Your task to perform on an android device: change the upload size in google photos Image 0: 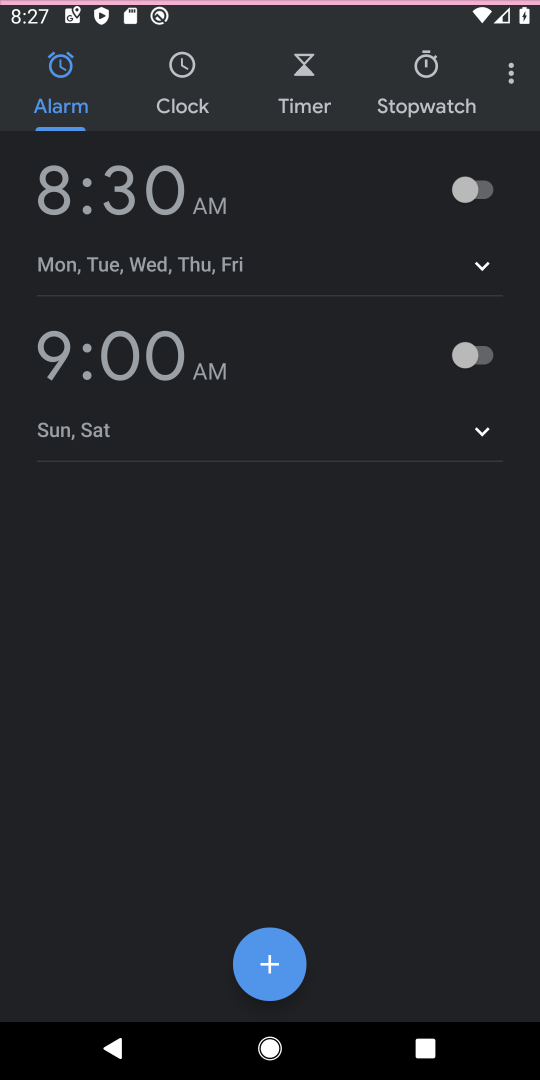
Step 0: press home button
Your task to perform on an android device: change the upload size in google photos Image 1: 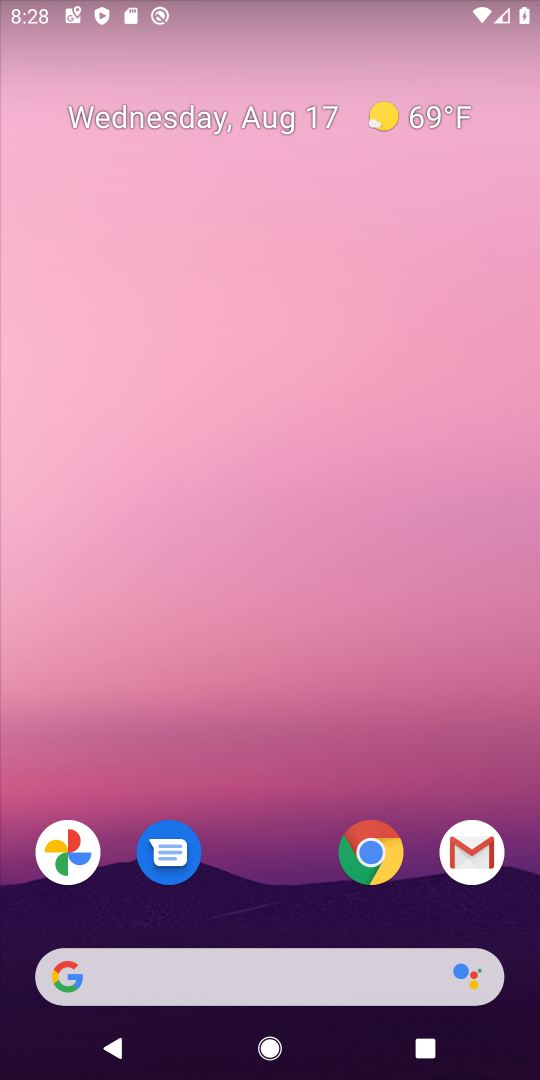
Step 1: click (62, 858)
Your task to perform on an android device: change the upload size in google photos Image 2: 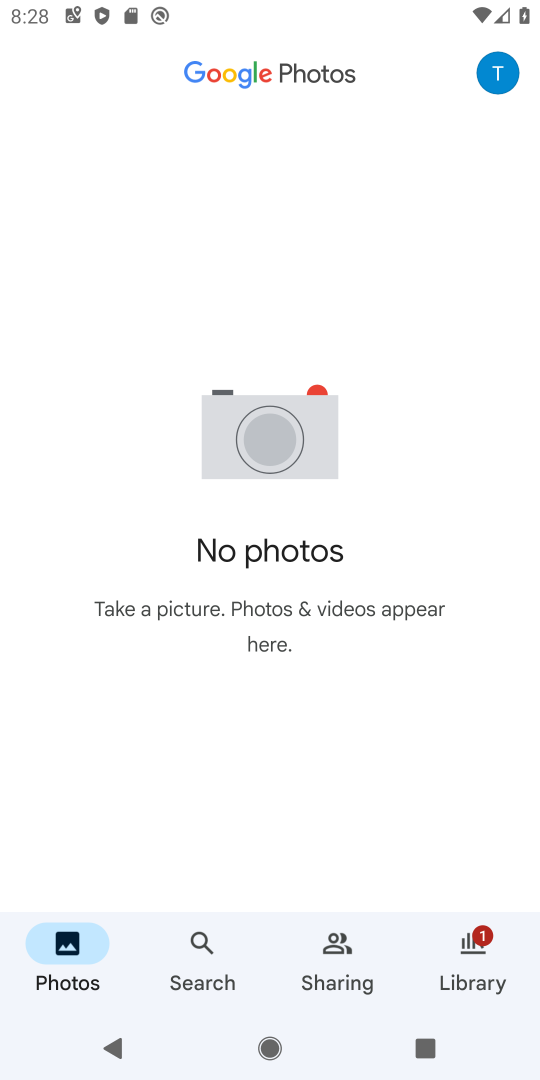
Step 2: click (500, 64)
Your task to perform on an android device: change the upload size in google photos Image 3: 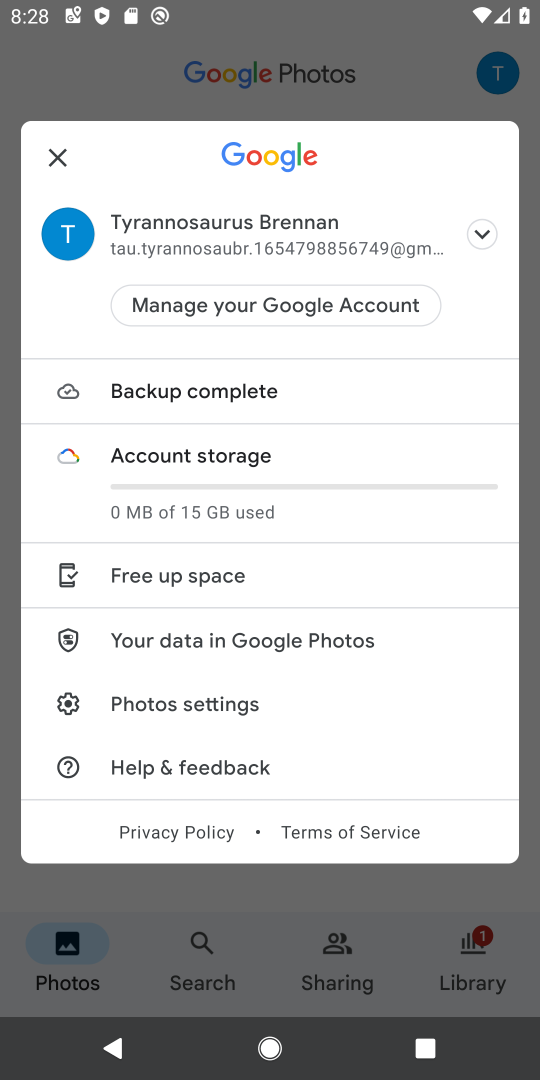
Step 3: click (193, 702)
Your task to perform on an android device: change the upload size in google photos Image 4: 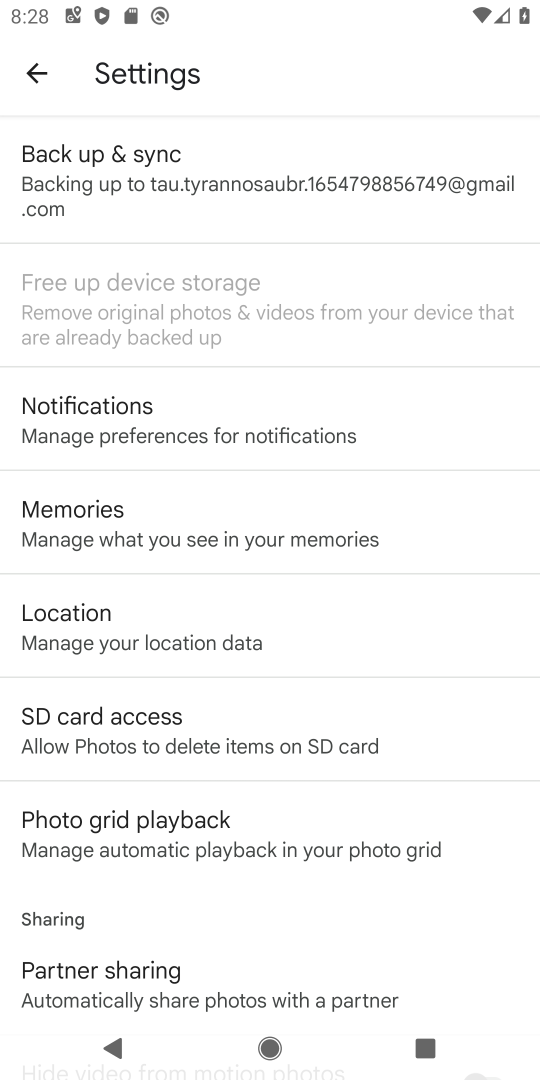
Step 4: click (95, 175)
Your task to perform on an android device: change the upload size in google photos Image 5: 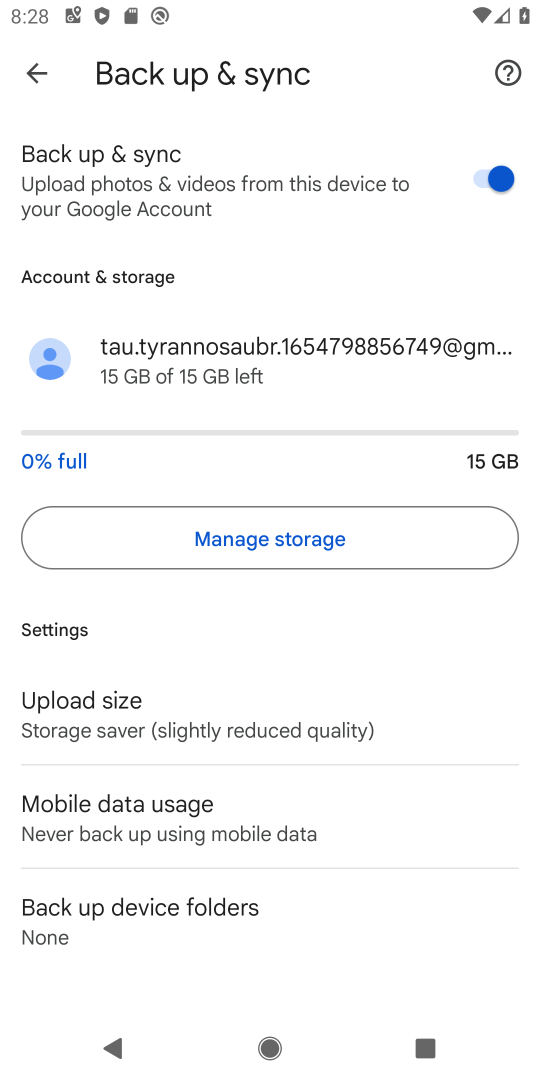
Step 5: click (93, 716)
Your task to perform on an android device: change the upload size in google photos Image 6: 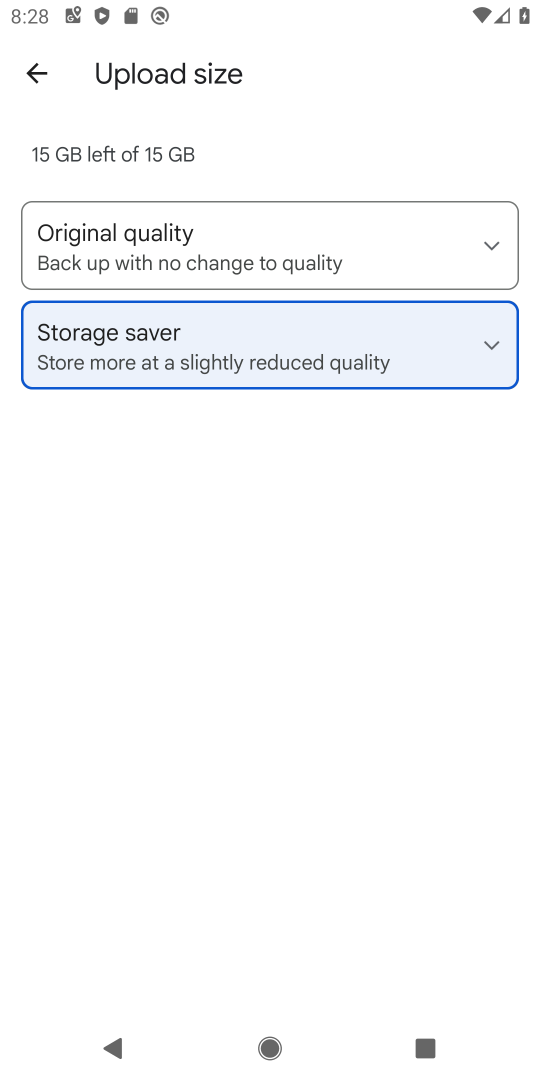
Step 6: click (417, 248)
Your task to perform on an android device: change the upload size in google photos Image 7: 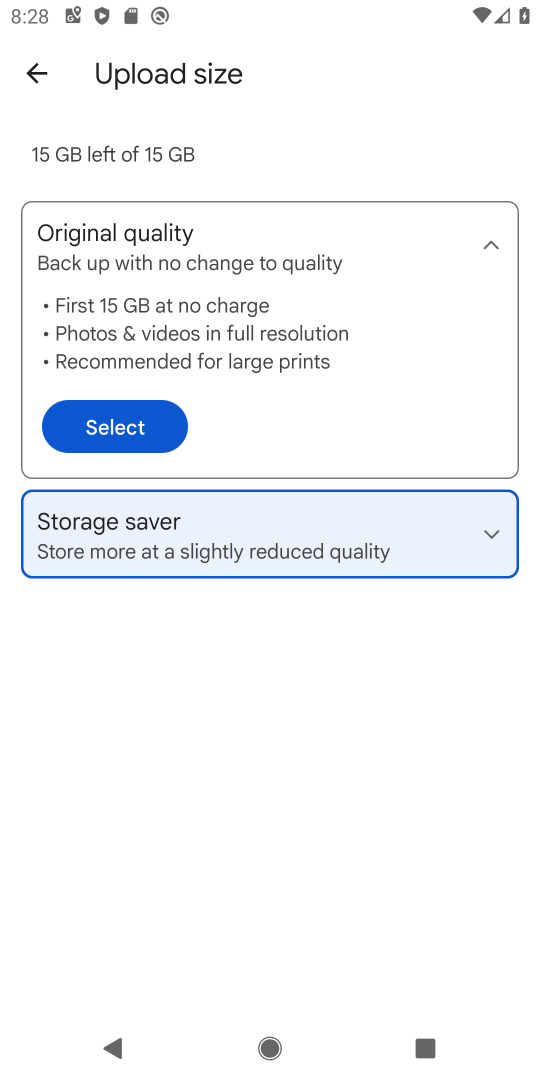
Step 7: click (73, 422)
Your task to perform on an android device: change the upload size in google photos Image 8: 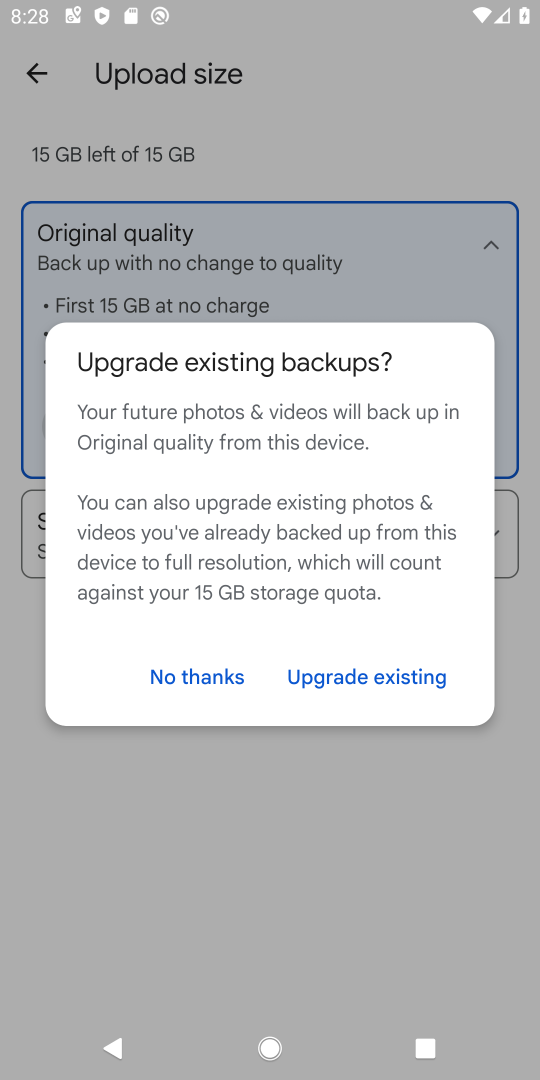
Step 8: click (341, 669)
Your task to perform on an android device: change the upload size in google photos Image 9: 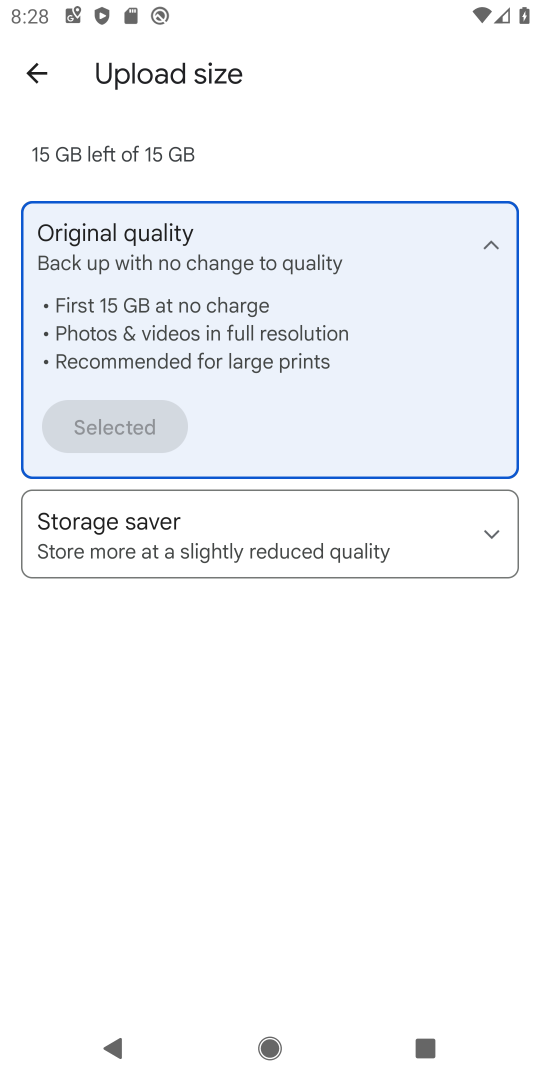
Step 9: task complete